Your task to perform on an android device: add a contact in the contacts app Image 0: 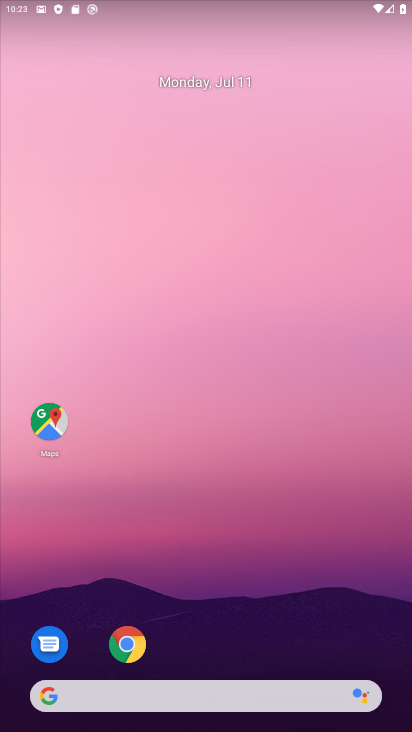
Step 0: drag from (229, 638) to (184, 335)
Your task to perform on an android device: add a contact in the contacts app Image 1: 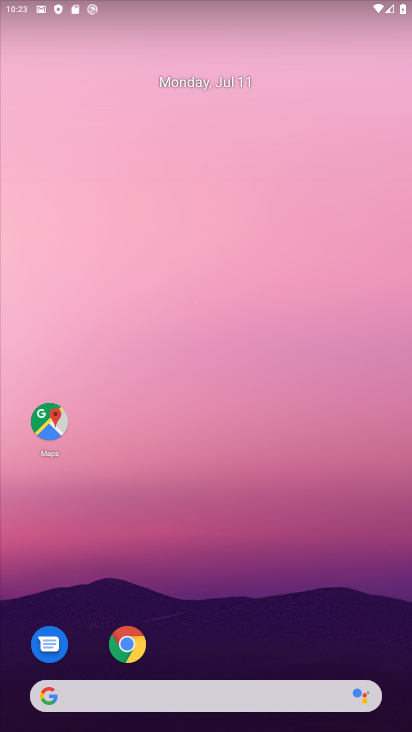
Step 1: drag from (211, 635) to (237, 108)
Your task to perform on an android device: add a contact in the contacts app Image 2: 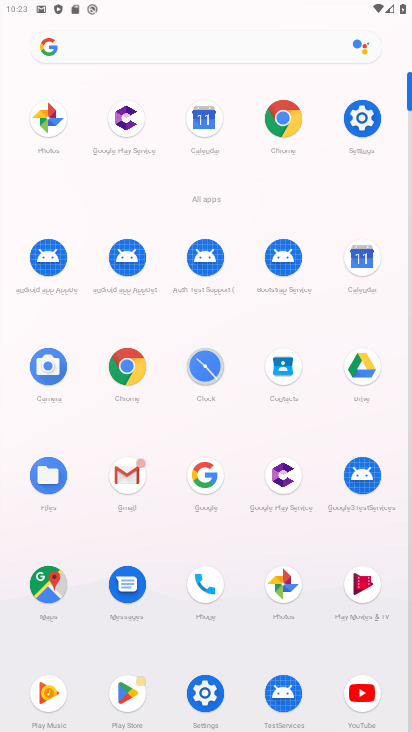
Step 2: click (213, 580)
Your task to perform on an android device: add a contact in the contacts app Image 3: 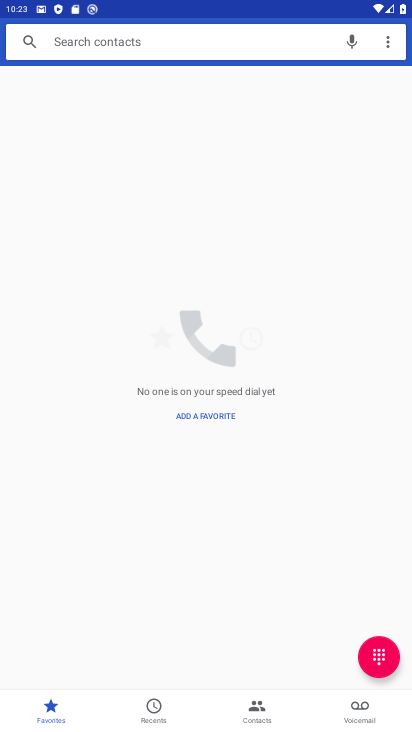
Step 3: click (201, 409)
Your task to perform on an android device: add a contact in the contacts app Image 4: 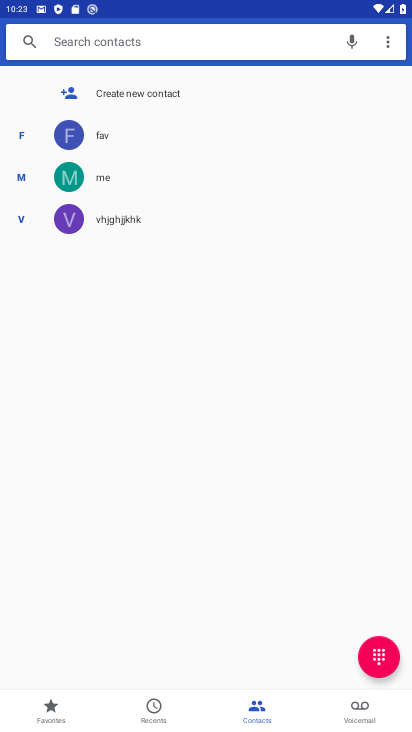
Step 4: click (201, 409)
Your task to perform on an android device: add a contact in the contacts app Image 5: 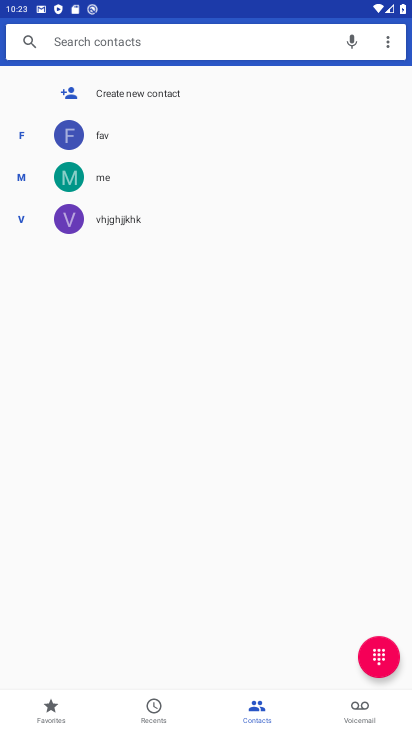
Step 5: click (110, 73)
Your task to perform on an android device: add a contact in the contacts app Image 6: 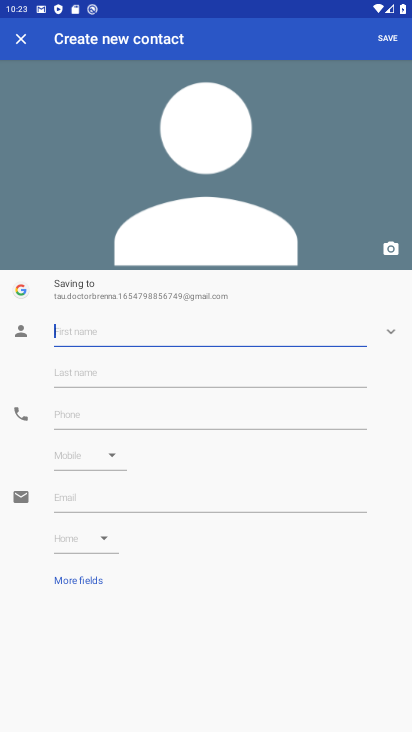
Step 6: click (143, 331)
Your task to perform on an android device: add a contact in the contacts app Image 7: 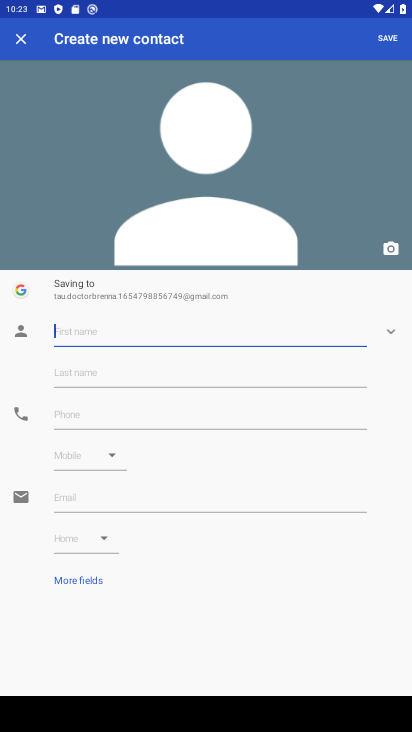
Step 7: type "saroj "
Your task to perform on an android device: add a contact in the contacts app Image 8: 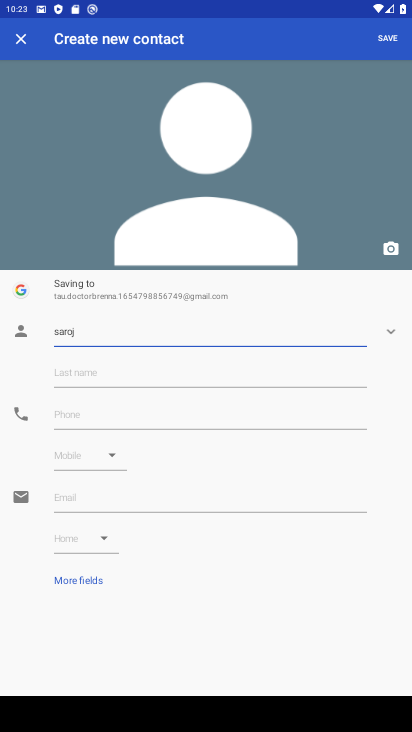
Step 8: click (56, 405)
Your task to perform on an android device: add a contact in the contacts app Image 9: 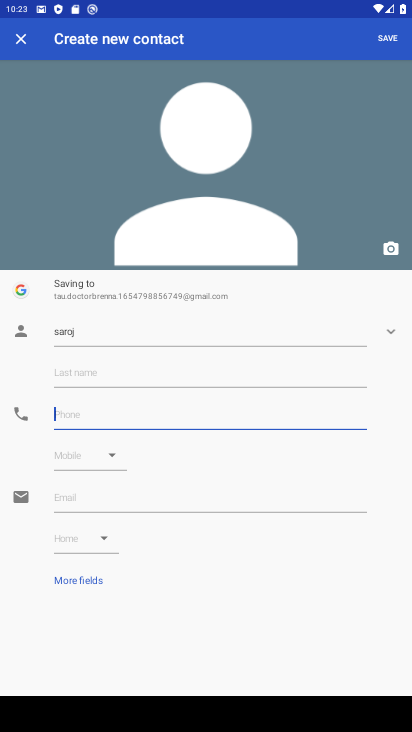
Step 9: type "1234567890"
Your task to perform on an android device: add a contact in the contacts app Image 10: 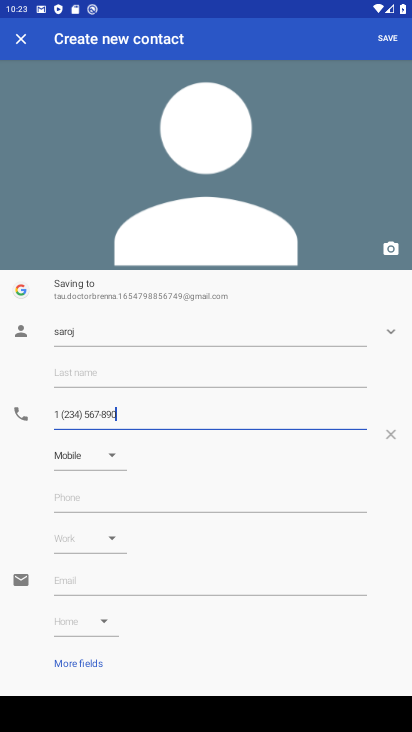
Step 10: click (380, 29)
Your task to perform on an android device: add a contact in the contacts app Image 11: 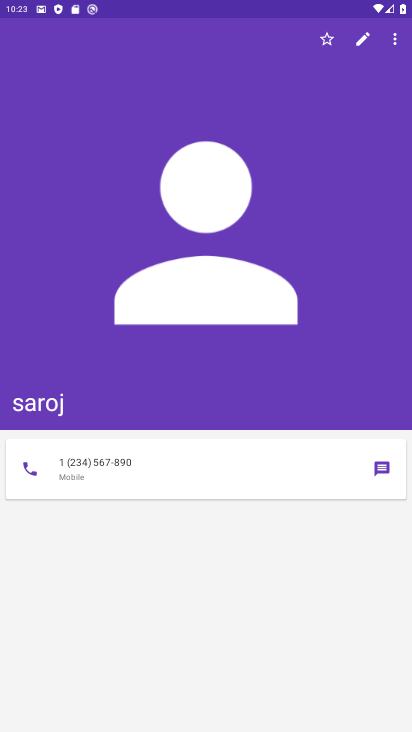
Step 11: task complete